Your task to perform on an android device: Search for the best fantasy books on Goodreads. Image 0: 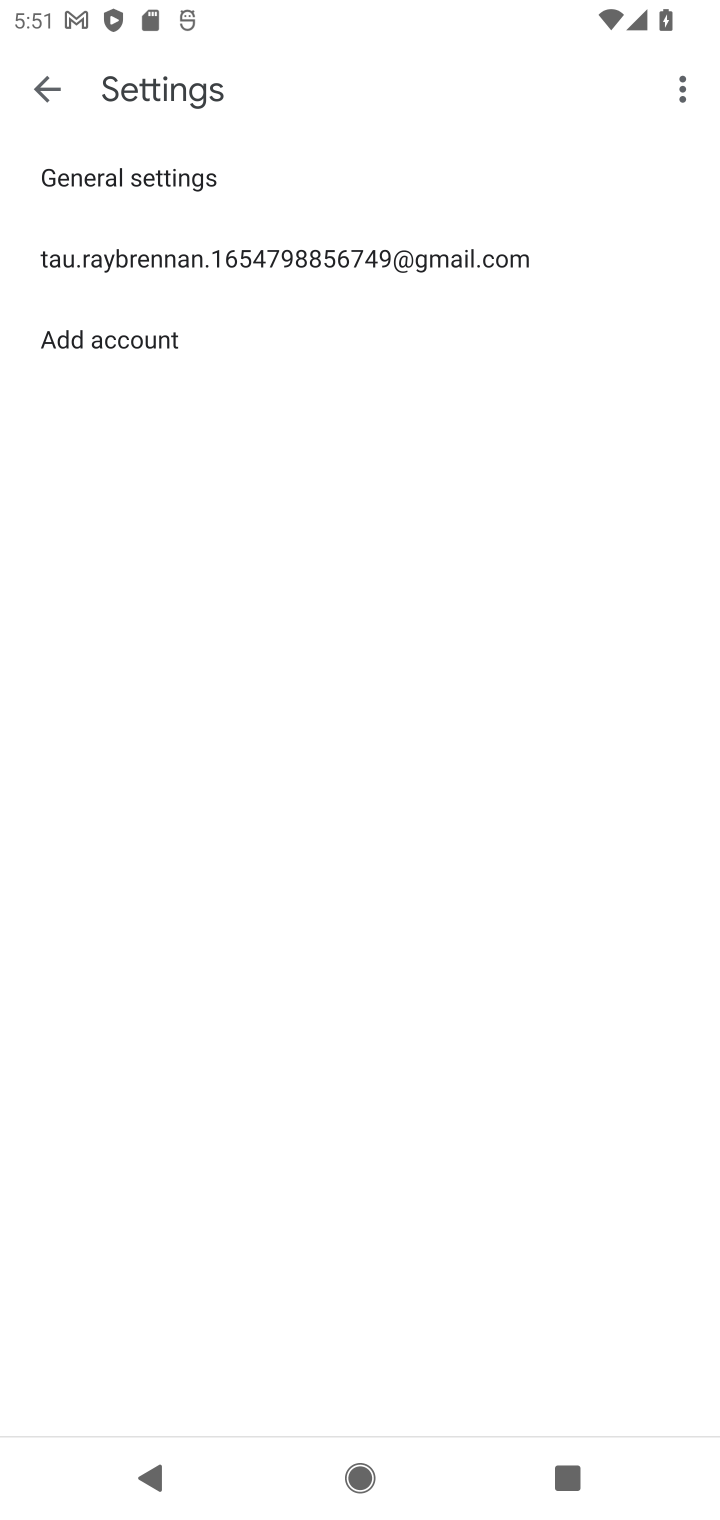
Step 0: press home button
Your task to perform on an android device: Search for the best fantasy books on Goodreads. Image 1: 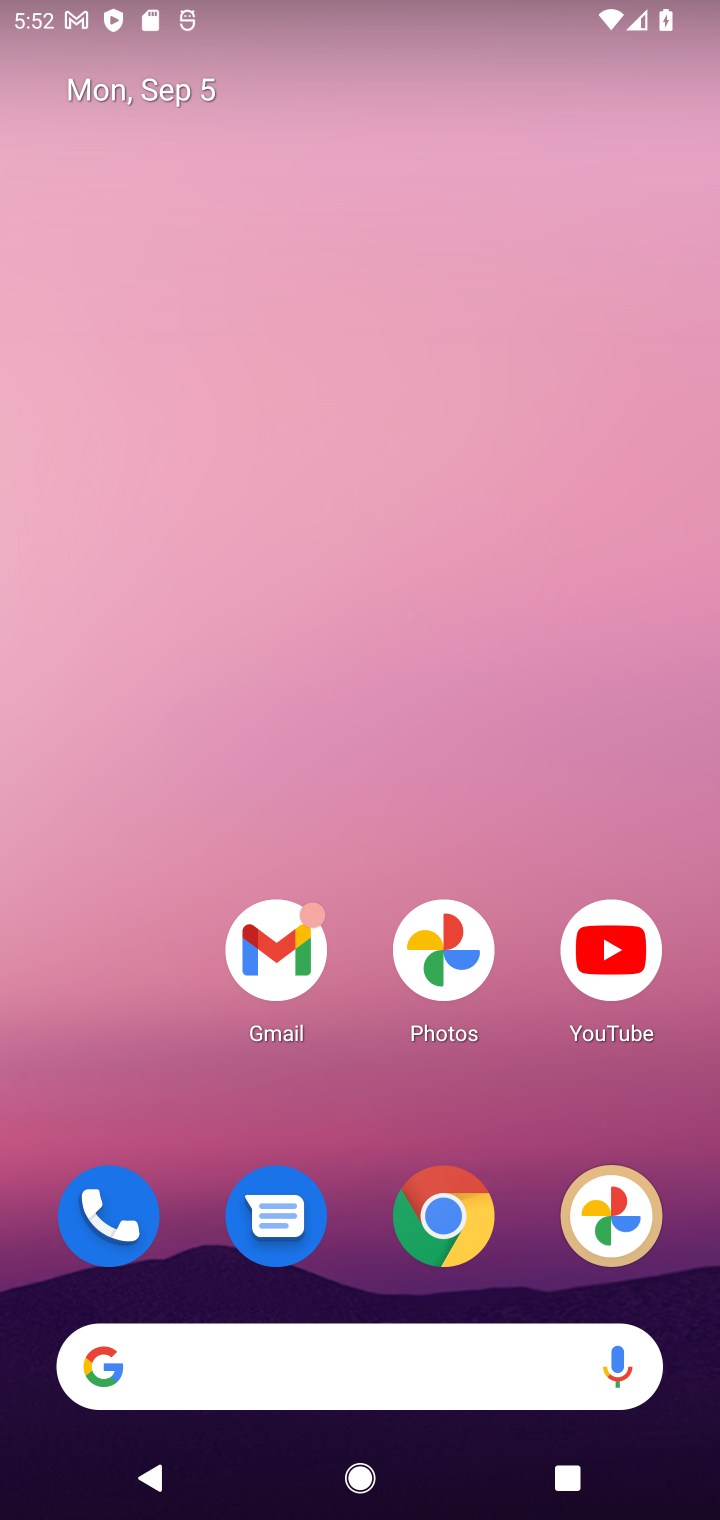
Step 1: click (446, 1225)
Your task to perform on an android device: Search for the best fantasy books on Goodreads. Image 2: 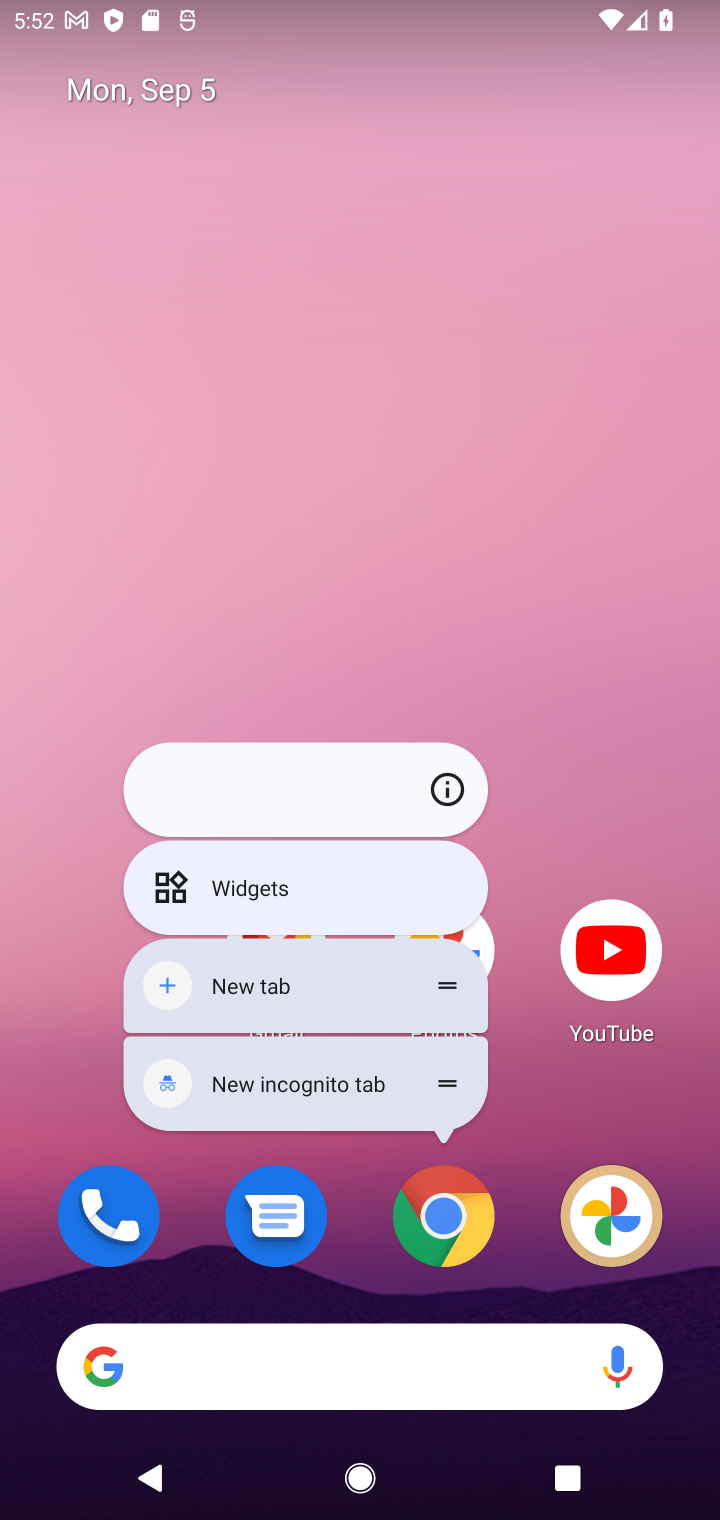
Step 2: click (446, 1225)
Your task to perform on an android device: Search for the best fantasy books on Goodreads. Image 3: 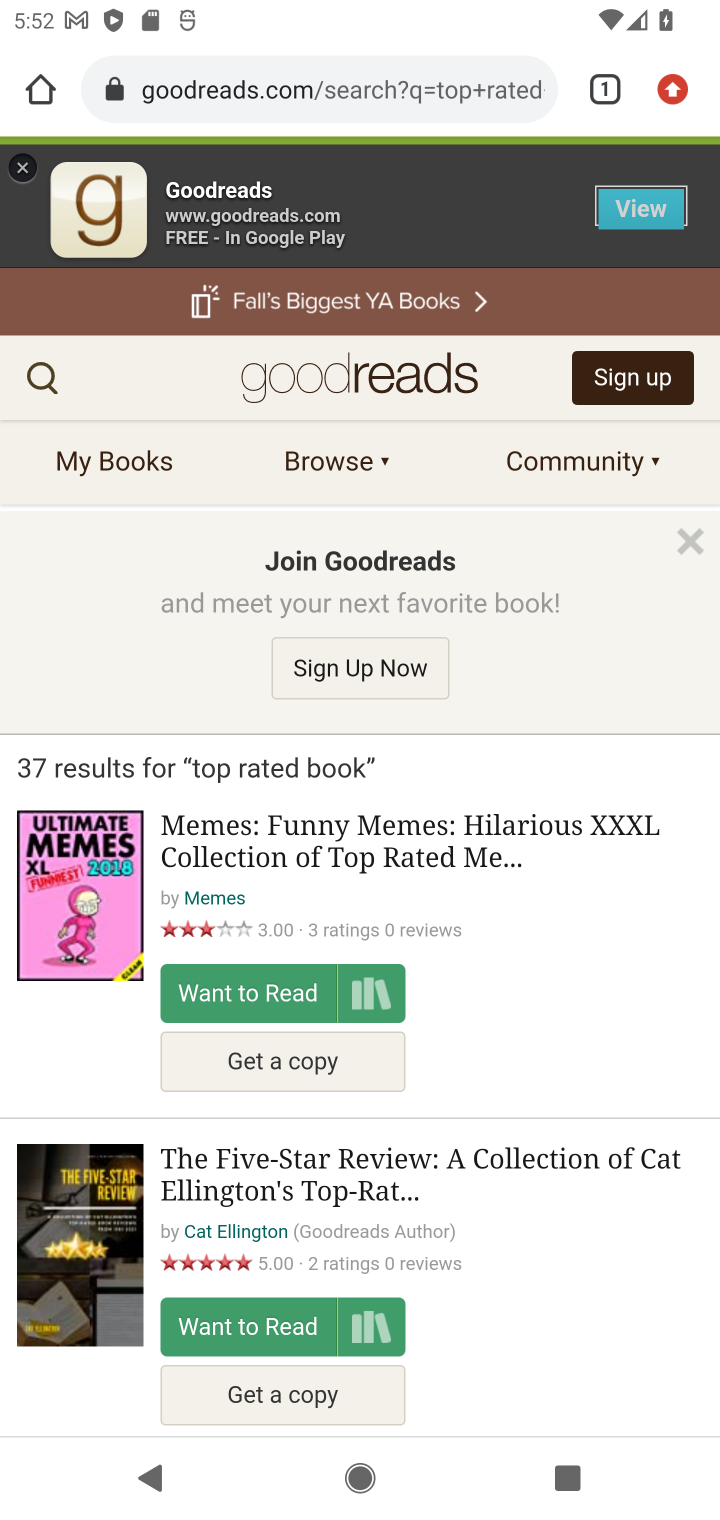
Step 3: click (36, 373)
Your task to perform on an android device: Search for the best fantasy books on Goodreads. Image 4: 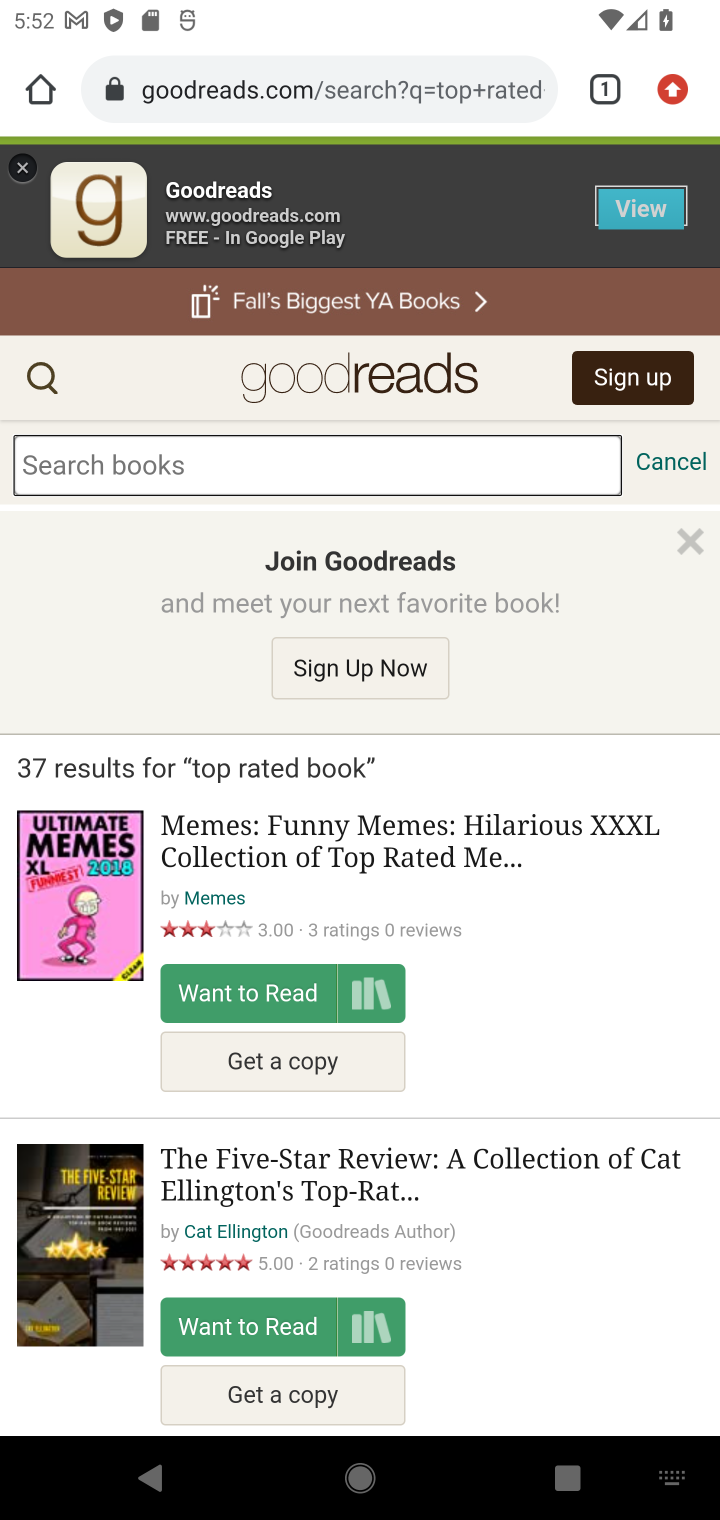
Step 4: type "best fantasy books"
Your task to perform on an android device: Search for the best fantasy books on Goodreads. Image 5: 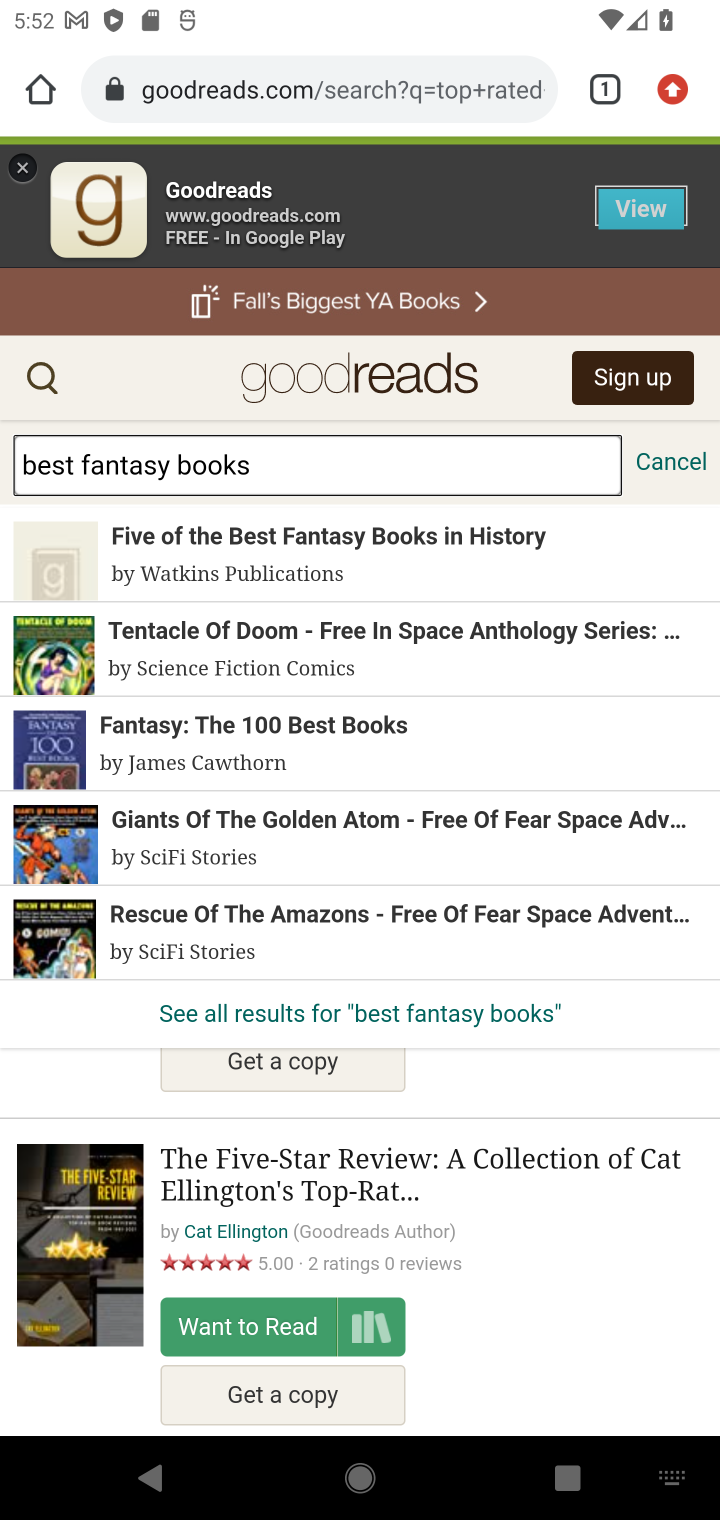
Step 5: press enter
Your task to perform on an android device: Search for the best fantasy books on Goodreads. Image 6: 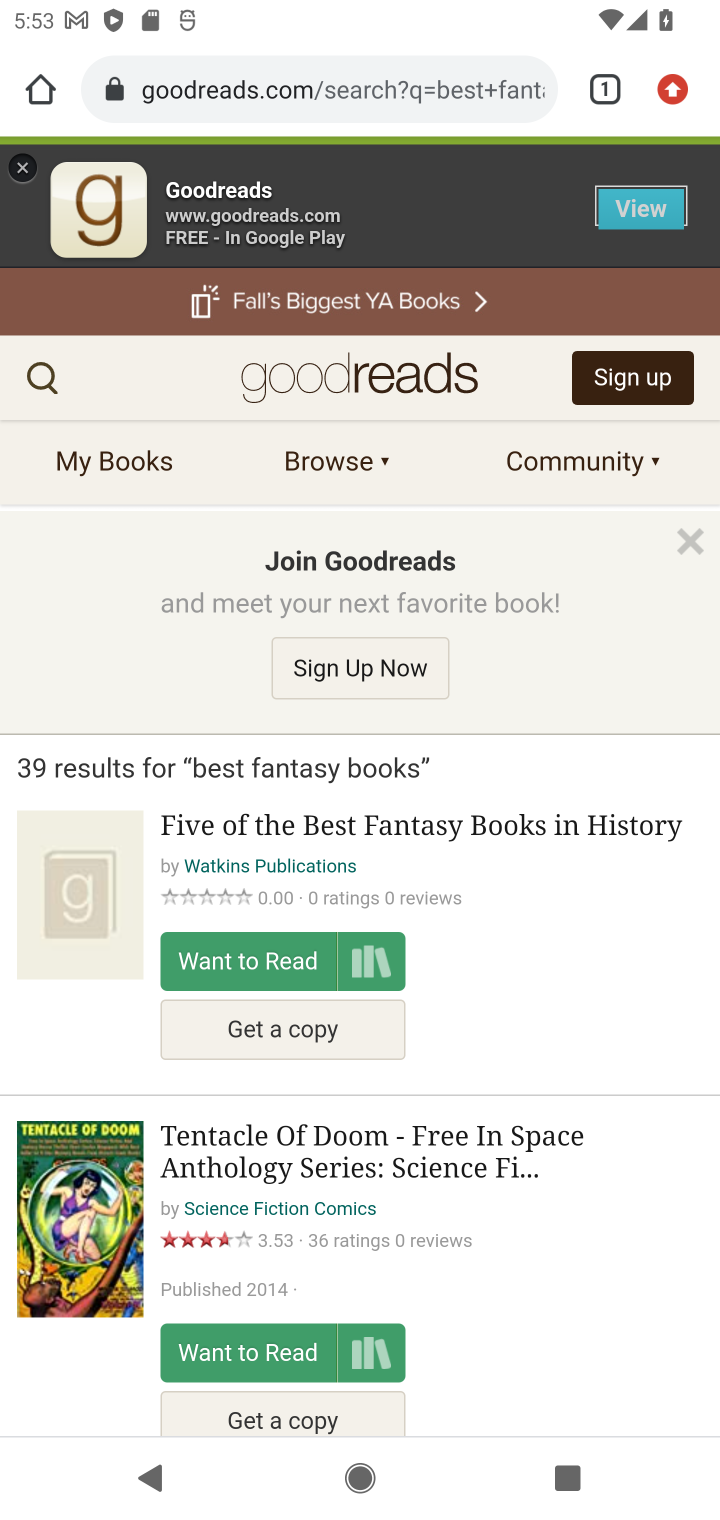
Step 6: click (614, 906)
Your task to perform on an android device: Search for the best fantasy books on Goodreads. Image 7: 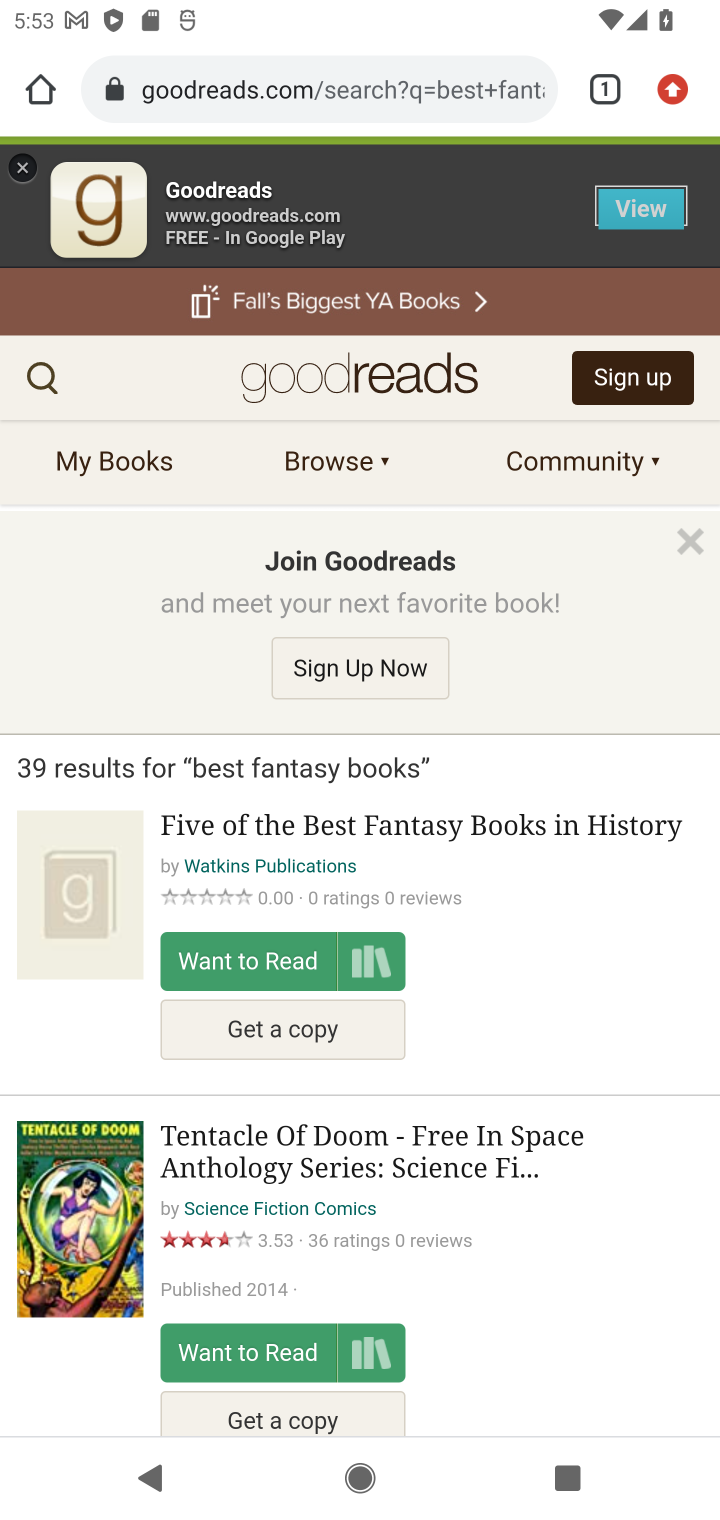
Step 7: task complete